Your task to perform on an android device: open sync settings in chrome Image 0: 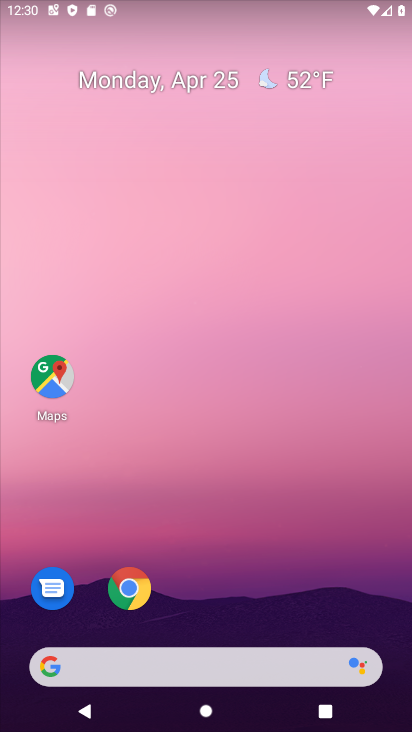
Step 0: click (135, 597)
Your task to perform on an android device: open sync settings in chrome Image 1: 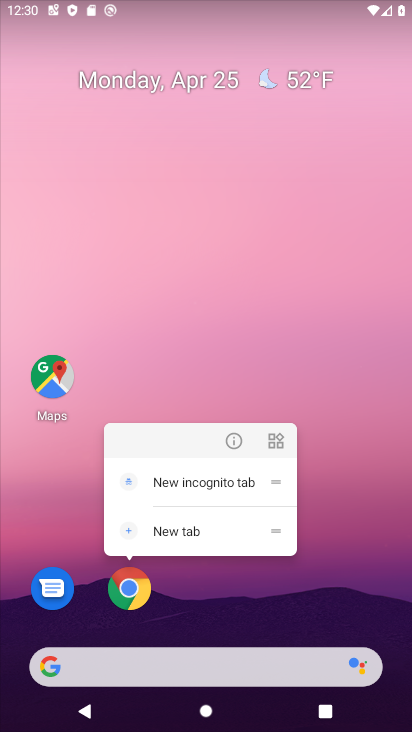
Step 1: click (136, 590)
Your task to perform on an android device: open sync settings in chrome Image 2: 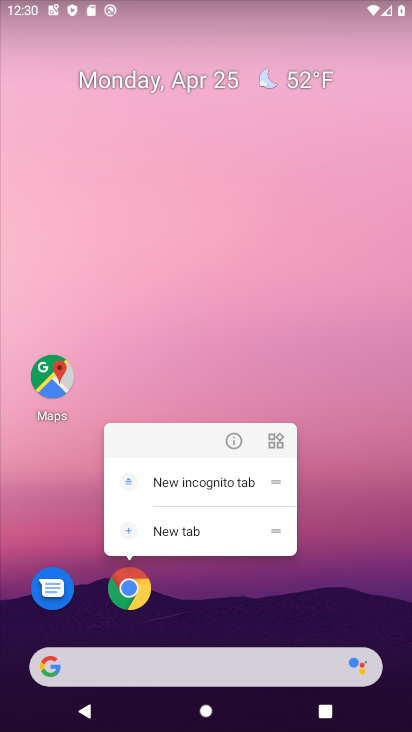
Step 2: click (131, 588)
Your task to perform on an android device: open sync settings in chrome Image 3: 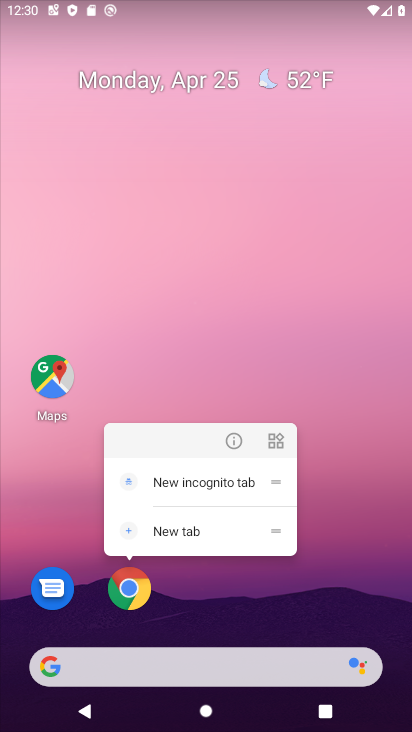
Step 3: click (126, 595)
Your task to perform on an android device: open sync settings in chrome Image 4: 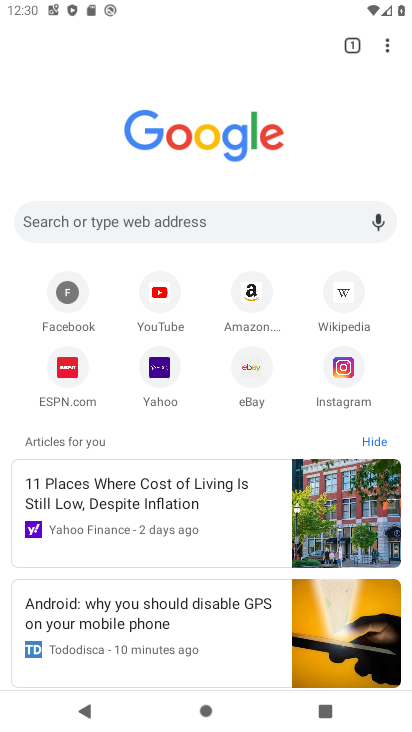
Step 4: drag from (397, 37) to (290, 388)
Your task to perform on an android device: open sync settings in chrome Image 5: 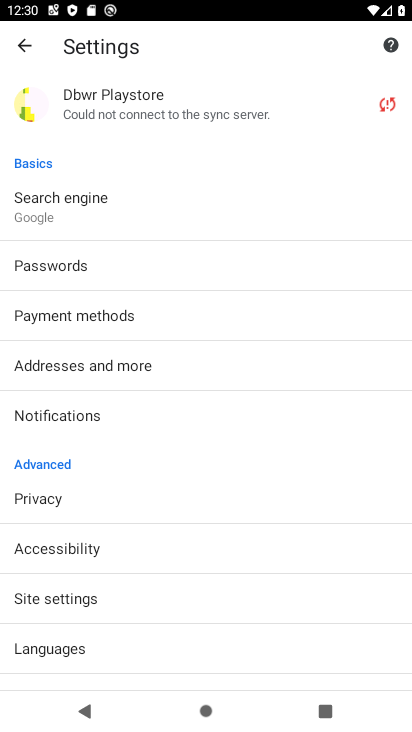
Step 5: click (189, 111)
Your task to perform on an android device: open sync settings in chrome Image 6: 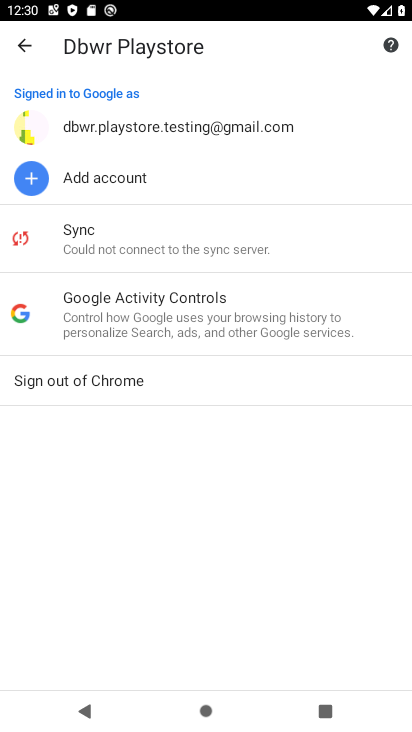
Step 6: click (175, 255)
Your task to perform on an android device: open sync settings in chrome Image 7: 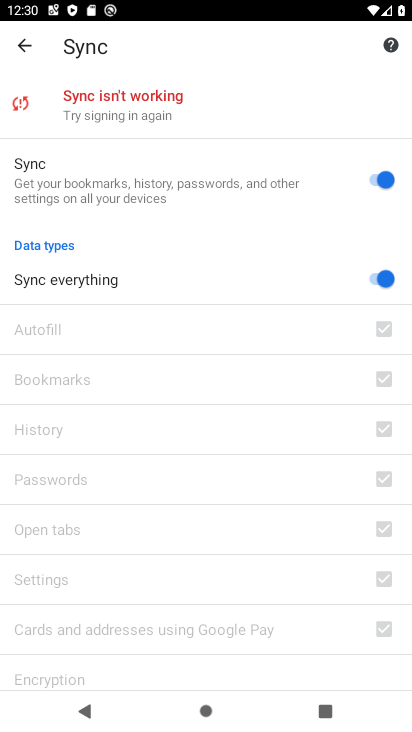
Step 7: task complete